Your task to perform on an android device: Open Wikipedia Image 0: 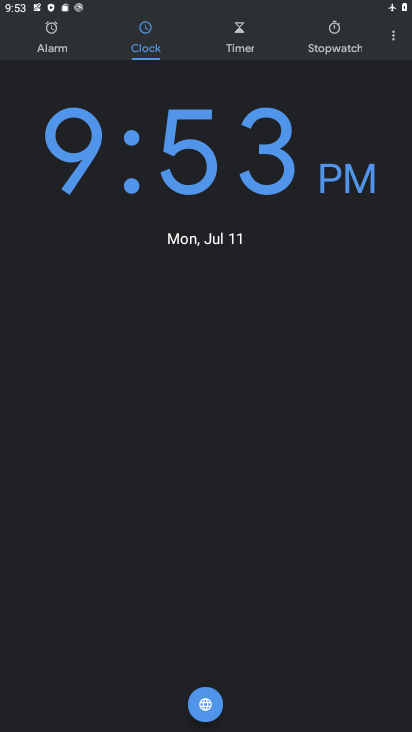
Step 0: press home button
Your task to perform on an android device: Open Wikipedia Image 1: 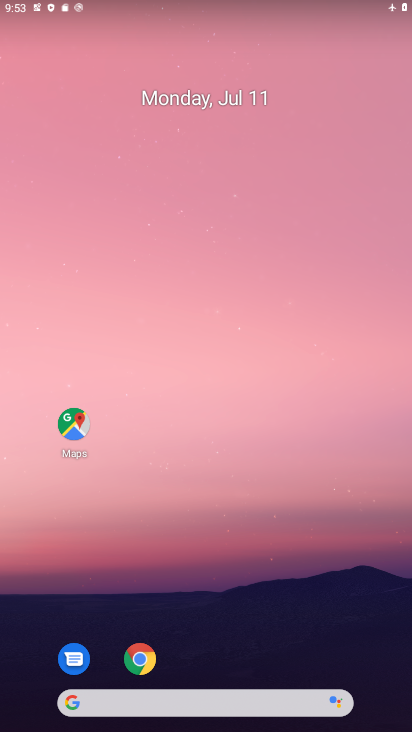
Step 1: drag from (207, 730) to (206, 206)
Your task to perform on an android device: Open Wikipedia Image 2: 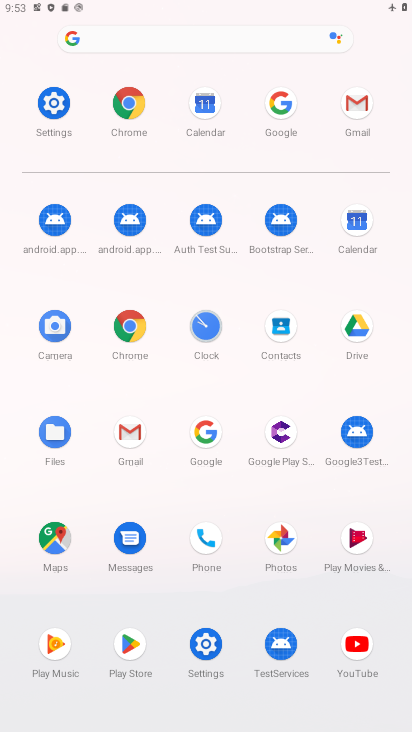
Step 2: click (128, 103)
Your task to perform on an android device: Open Wikipedia Image 3: 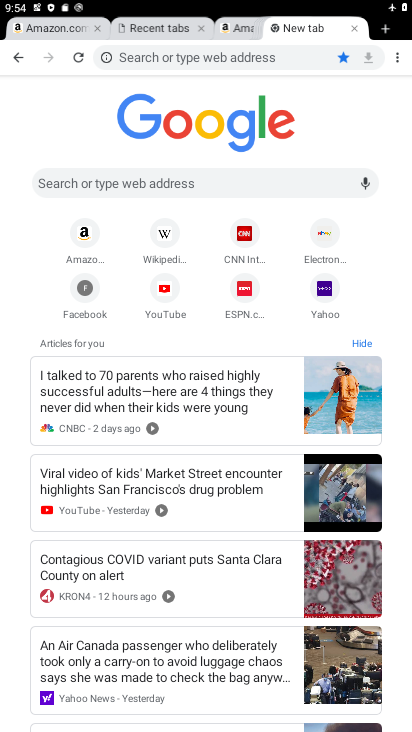
Step 3: click (160, 235)
Your task to perform on an android device: Open Wikipedia Image 4: 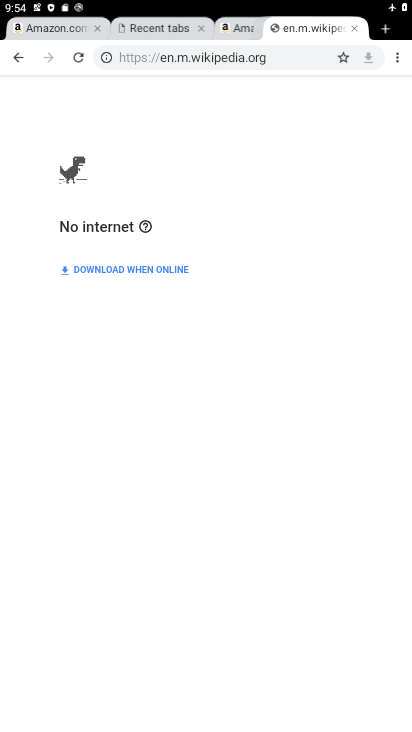
Step 4: task complete